Your task to perform on an android device: turn pop-ups on in chrome Image 0: 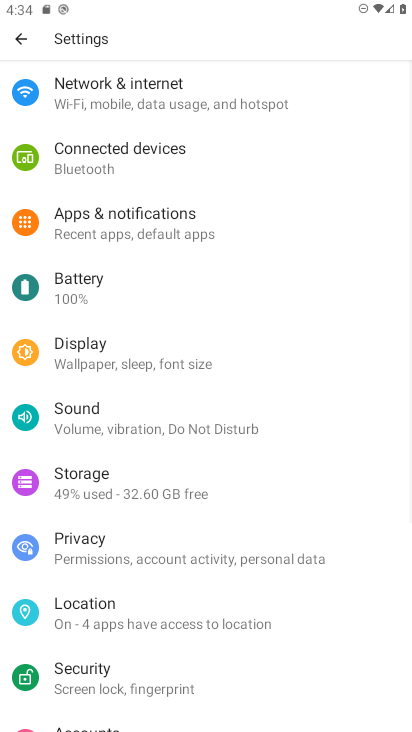
Step 0: press home button
Your task to perform on an android device: turn pop-ups on in chrome Image 1: 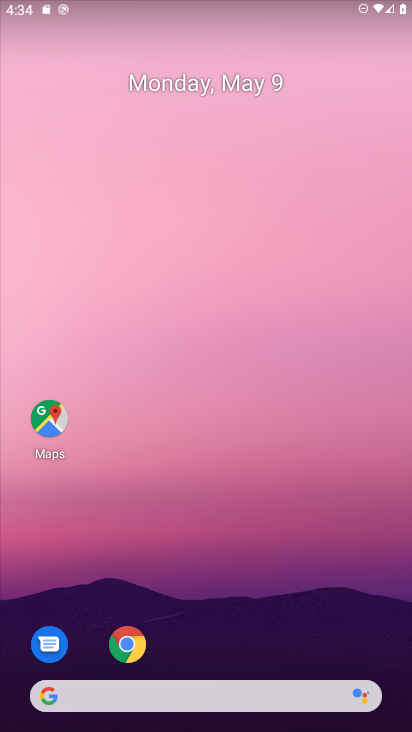
Step 1: click (142, 648)
Your task to perform on an android device: turn pop-ups on in chrome Image 2: 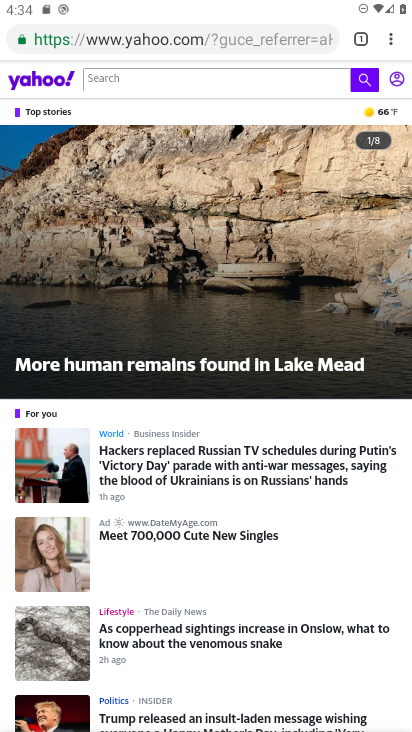
Step 2: click (388, 33)
Your task to perform on an android device: turn pop-ups on in chrome Image 3: 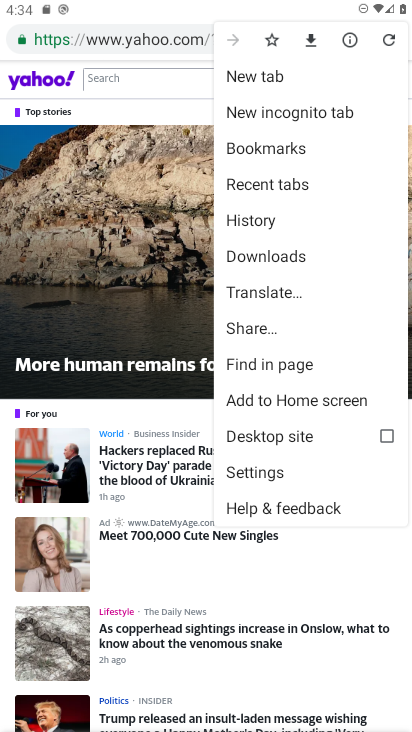
Step 3: click (251, 472)
Your task to perform on an android device: turn pop-ups on in chrome Image 4: 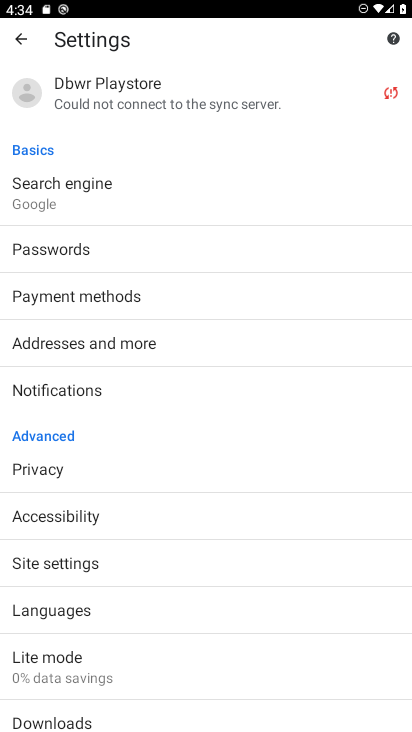
Step 4: click (63, 555)
Your task to perform on an android device: turn pop-ups on in chrome Image 5: 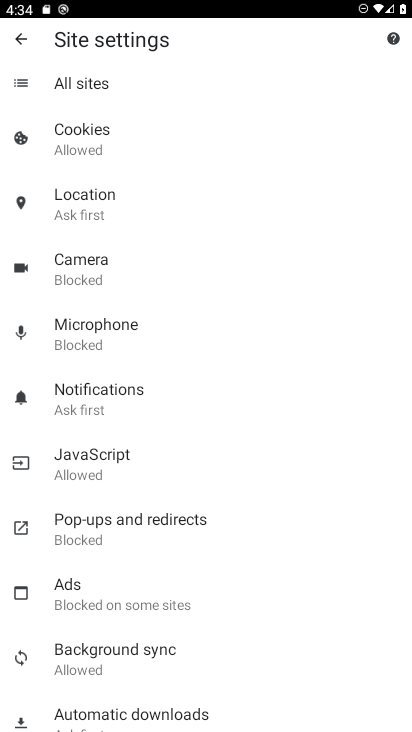
Step 5: click (95, 524)
Your task to perform on an android device: turn pop-ups on in chrome Image 6: 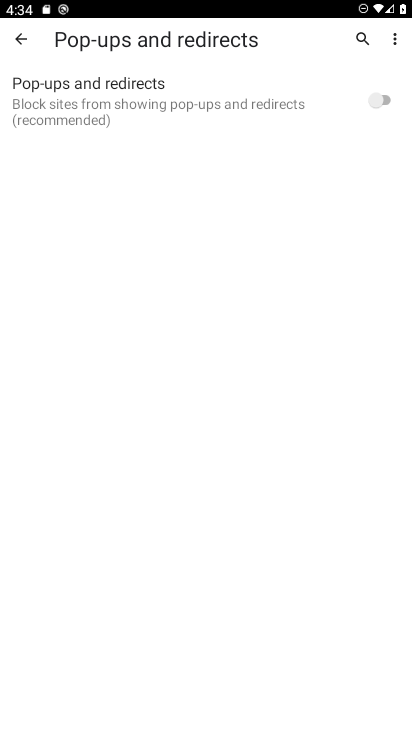
Step 6: click (387, 101)
Your task to perform on an android device: turn pop-ups on in chrome Image 7: 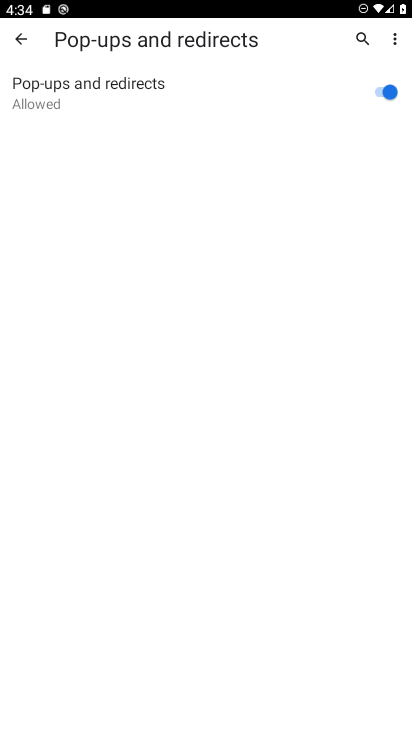
Step 7: task complete